Your task to perform on an android device: turn pop-ups on in chrome Image 0: 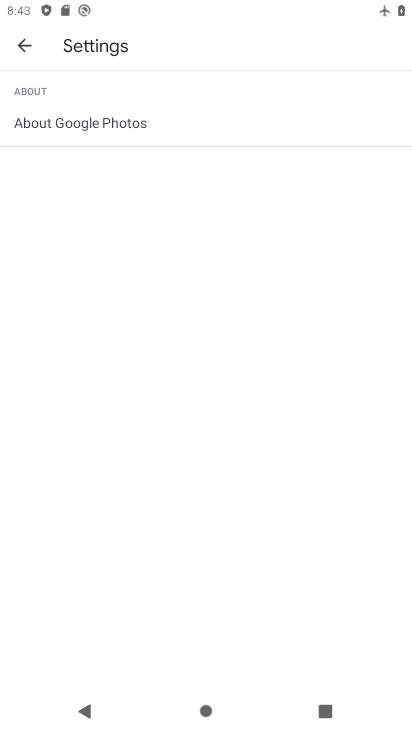
Step 0: press back button
Your task to perform on an android device: turn pop-ups on in chrome Image 1: 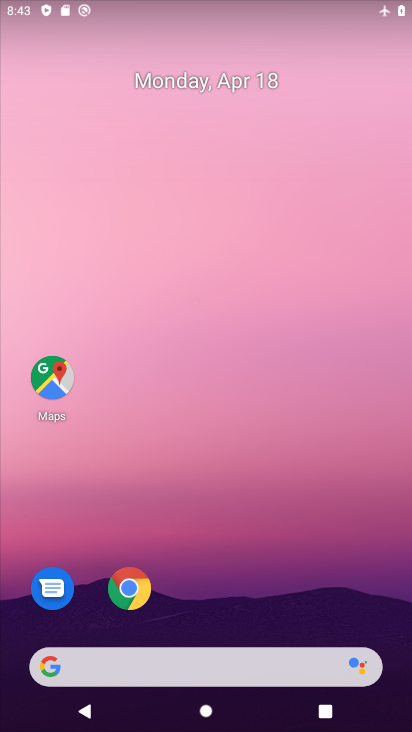
Step 1: drag from (233, 605) to (229, 245)
Your task to perform on an android device: turn pop-ups on in chrome Image 2: 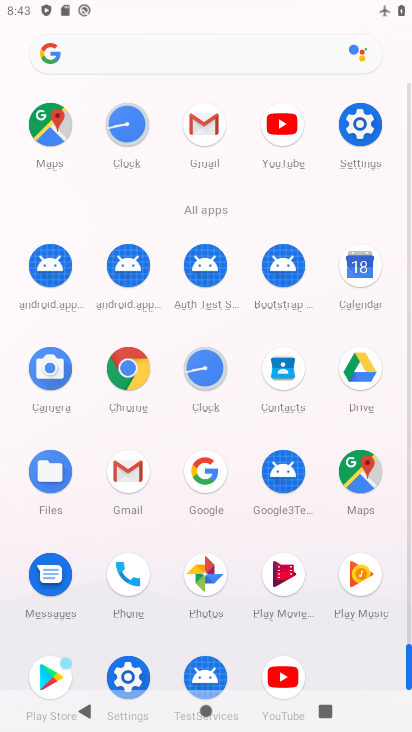
Step 2: click (128, 375)
Your task to perform on an android device: turn pop-ups on in chrome Image 3: 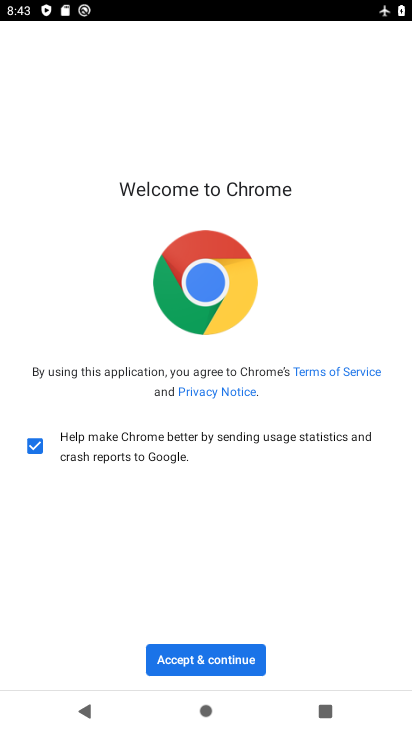
Step 3: click (211, 658)
Your task to perform on an android device: turn pop-ups on in chrome Image 4: 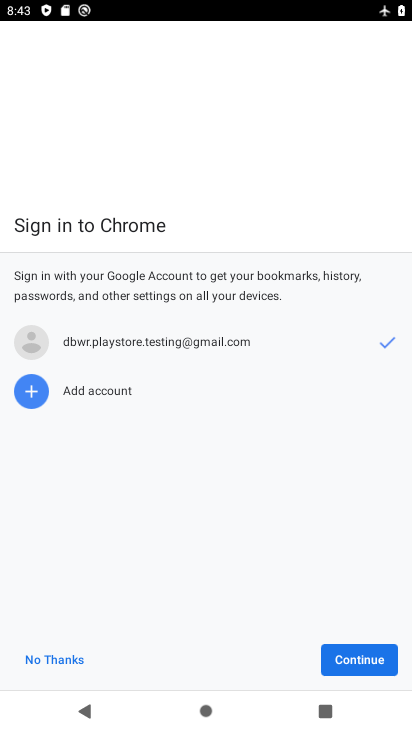
Step 4: click (363, 663)
Your task to perform on an android device: turn pop-ups on in chrome Image 5: 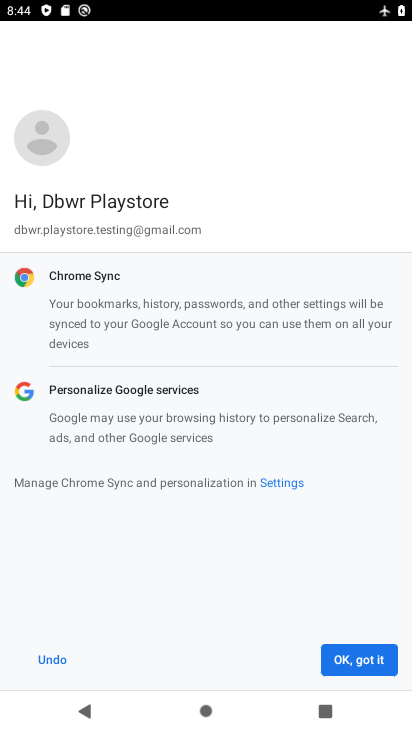
Step 5: click (363, 663)
Your task to perform on an android device: turn pop-ups on in chrome Image 6: 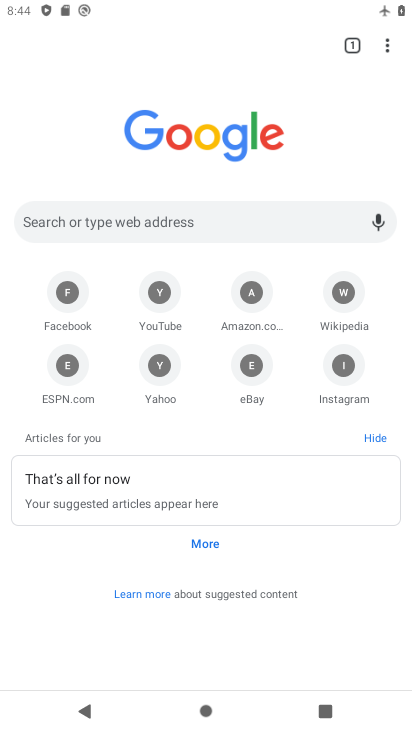
Step 6: click (388, 44)
Your task to perform on an android device: turn pop-ups on in chrome Image 7: 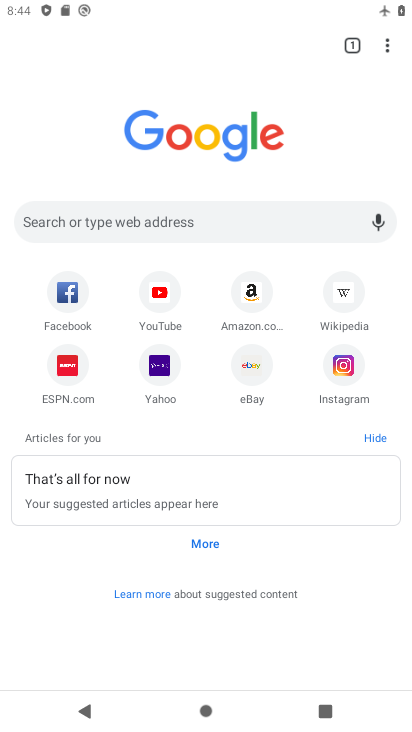
Step 7: click (388, 45)
Your task to perform on an android device: turn pop-ups on in chrome Image 8: 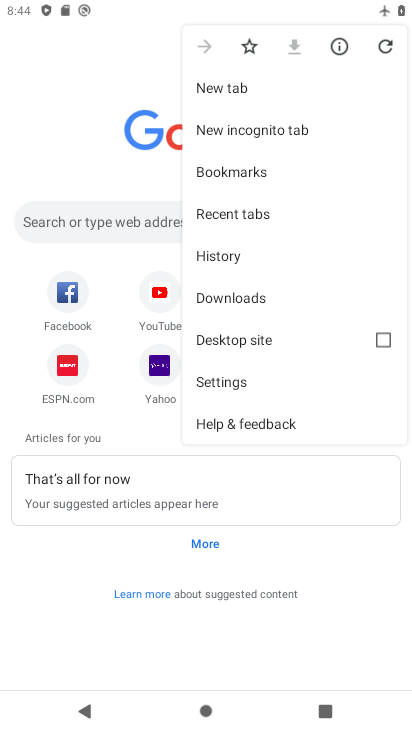
Step 8: click (260, 382)
Your task to perform on an android device: turn pop-ups on in chrome Image 9: 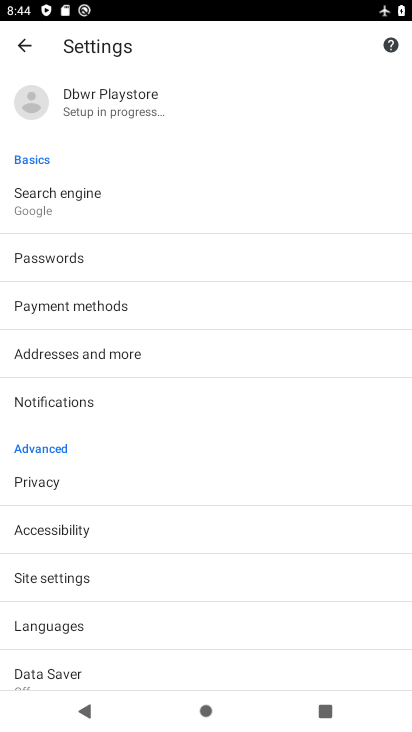
Step 9: drag from (195, 637) to (266, 143)
Your task to perform on an android device: turn pop-ups on in chrome Image 10: 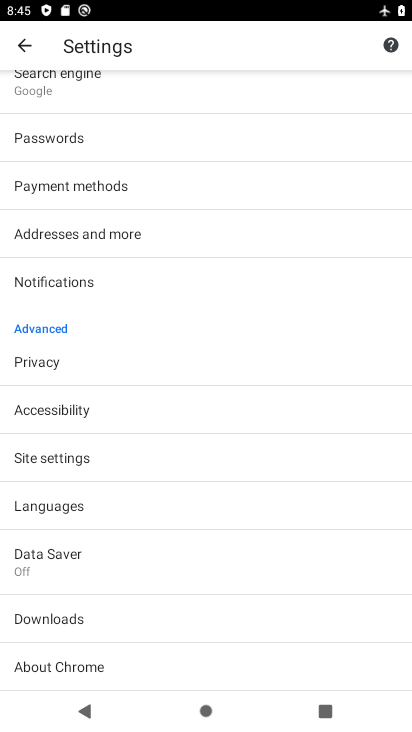
Step 10: click (96, 457)
Your task to perform on an android device: turn pop-ups on in chrome Image 11: 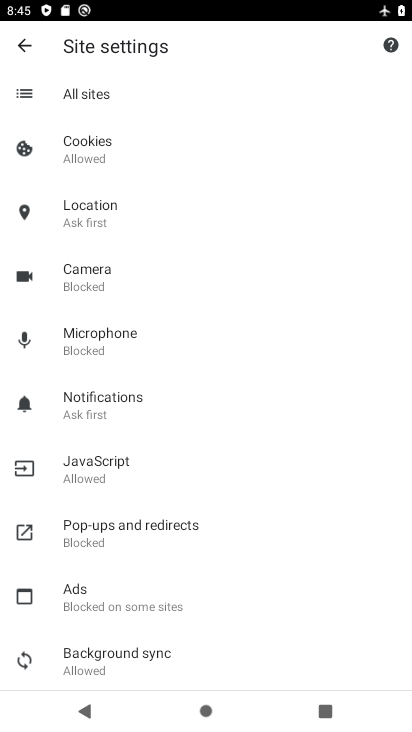
Step 11: click (155, 531)
Your task to perform on an android device: turn pop-ups on in chrome Image 12: 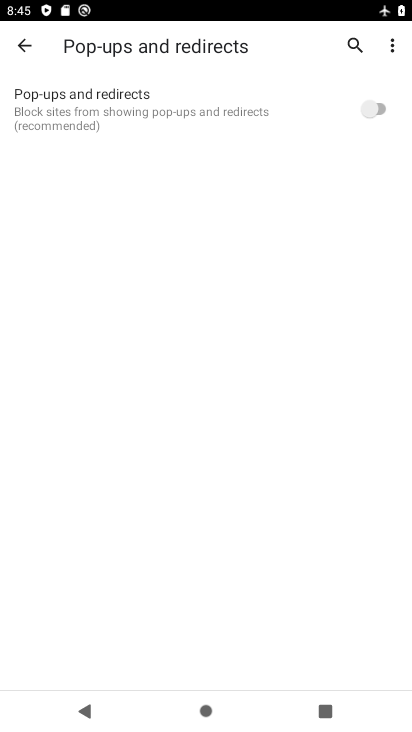
Step 12: click (368, 106)
Your task to perform on an android device: turn pop-ups on in chrome Image 13: 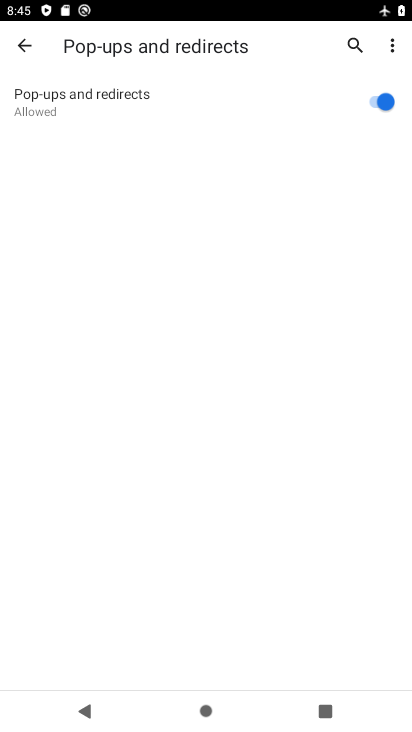
Step 13: task complete